Your task to perform on an android device: Open maps Image 0: 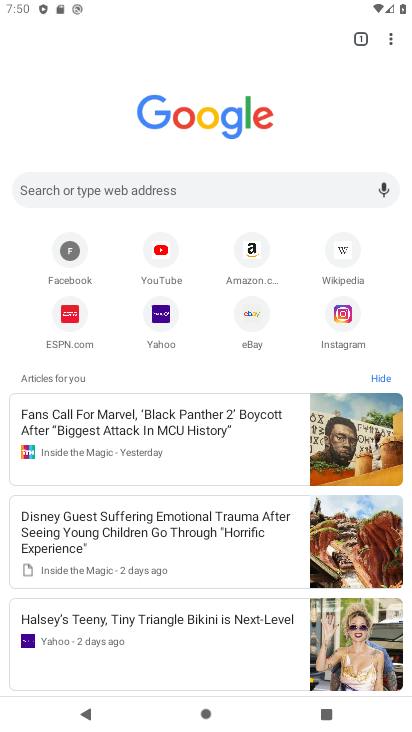
Step 0: press home button
Your task to perform on an android device: Open maps Image 1: 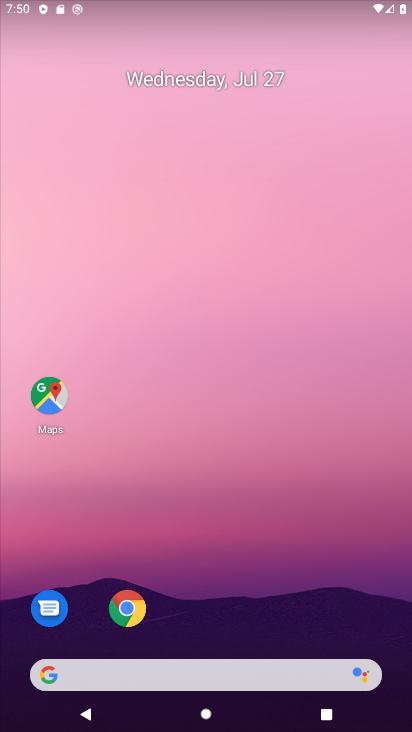
Step 1: click (38, 390)
Your task to perform on an android device: Open maps Image 2: 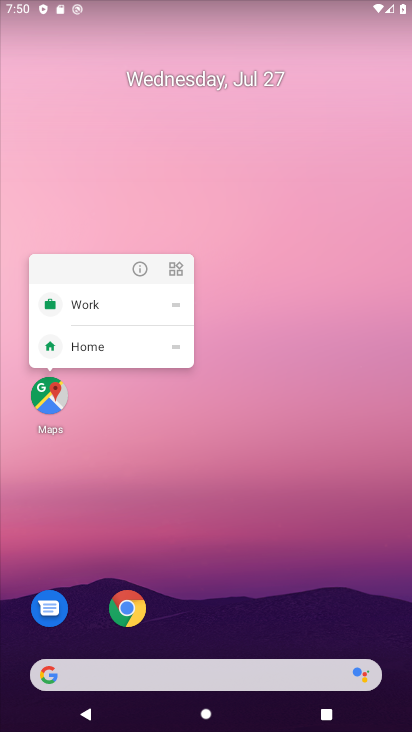
Step 2: click (52, 401)
Your task to perform on an android device: Open maps Image 3: 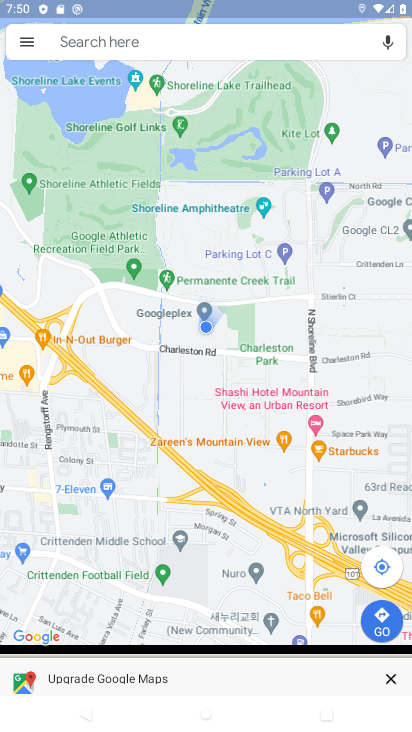
Step 3: task complete